Your task to perform on an android device: search for starred emails in the gmail app Image 0: 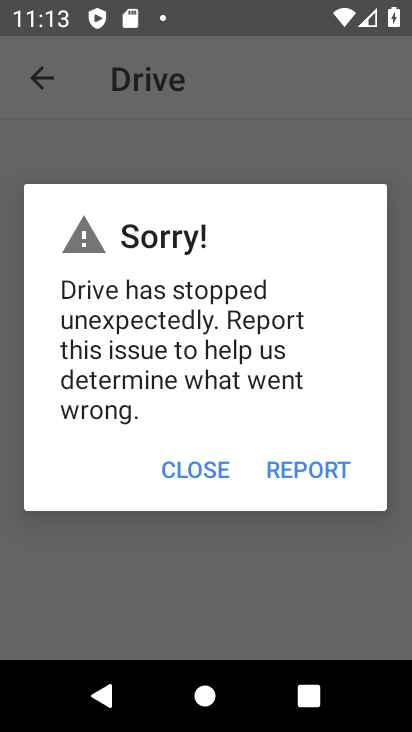
Step 0: press home button
Your task to perform on an android device: search for starred emails in the gmail app Image 1: 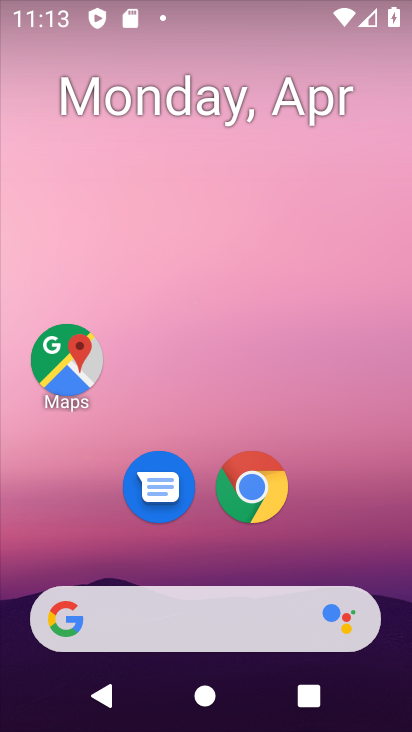
Step 1: drag from (373, 569) to (265, 196)
Your task to perform on an android device: search for starred emails in the gmail app Image 2: 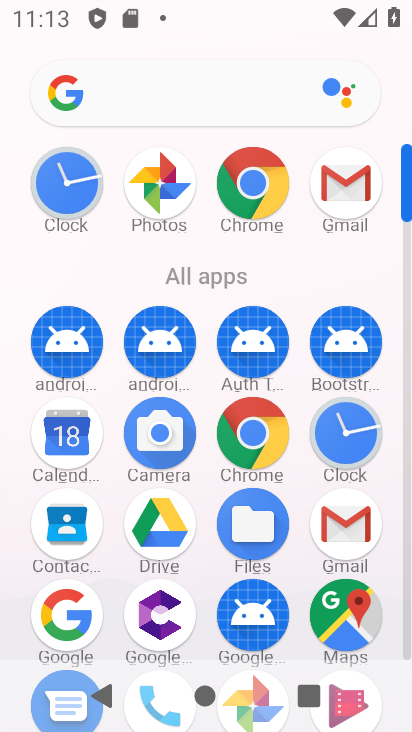
Step 2: click (341, 193)
Your task to perform on an android device: search for starred emails in the gmail app Image 3: 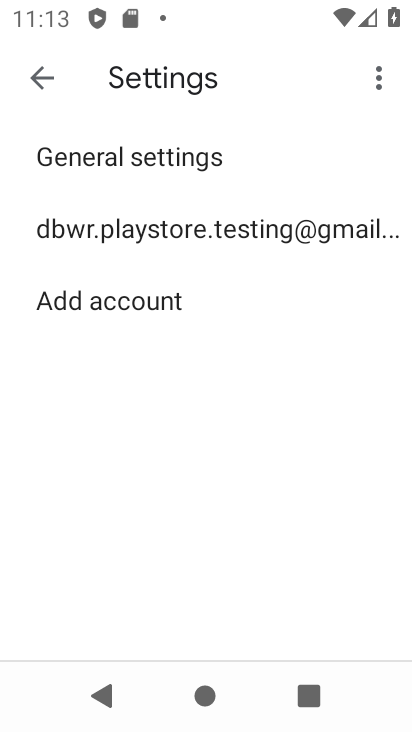
Step 3: click (314, 226)
Your task to perform on an android device: search for starred emails in the gmail app Image 4: 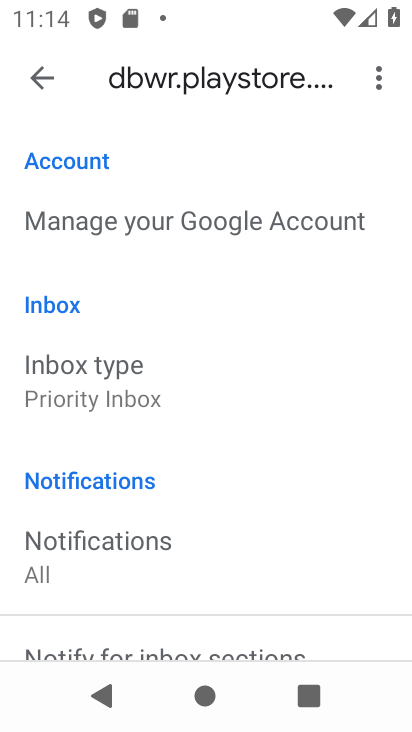
Step 4: click (50, 60)
Your task to perform on an android device: search for starred emails in the gmail app Image 5: 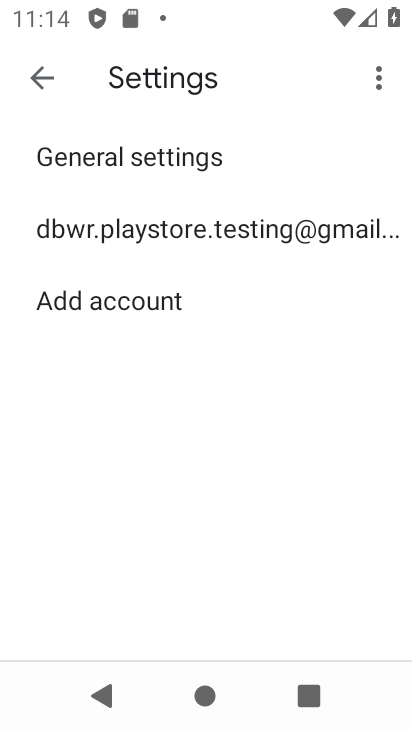
Step 5: click (50, 60)
Your task to perform on an android device: search for starred emails in the gmail app Image 6: 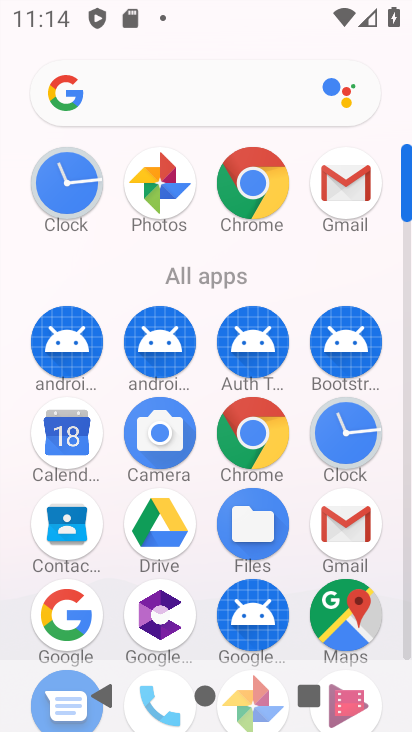
Step 6: click (335, 194)
Your task to perform on an android device: search for starred emails in the gmail app Image 7: 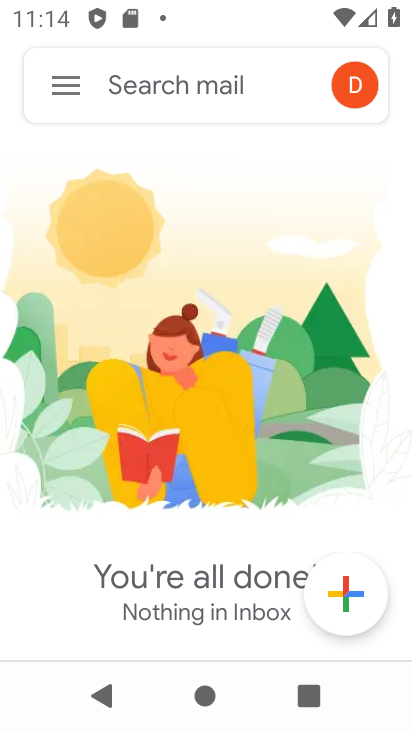
Step 7: click (57, 92)
Your task to perform on an android device: search for starred emails in the gmail app Image 8: 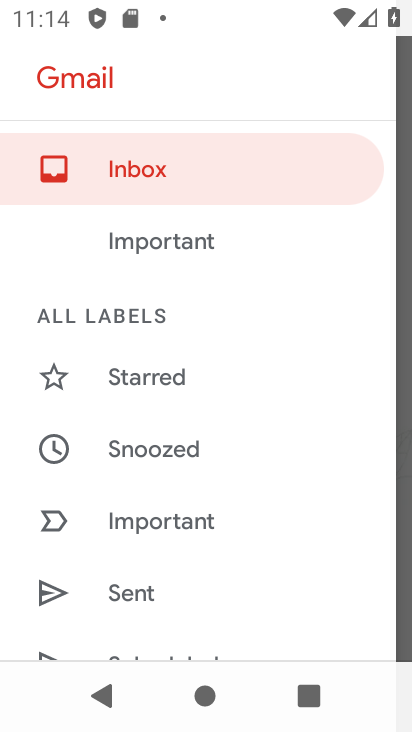
Step 8: click (221, 379)
Your task to perform on an android device: search for starred emails in the gmail app Image 9: 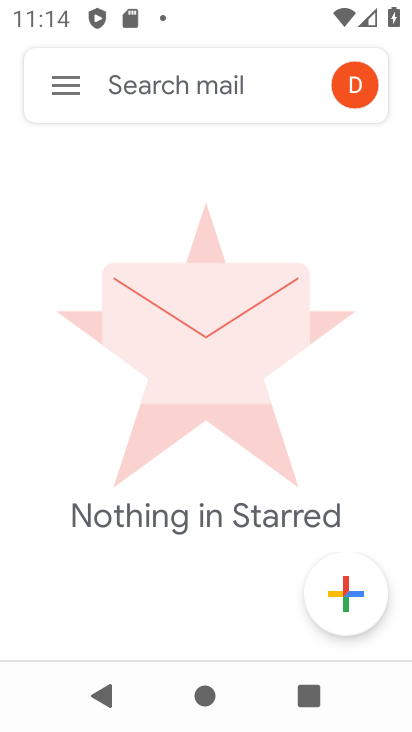
Step 9: task complete